Your task to perform on an android device: Go to calendar. Show me events next week Image 0: 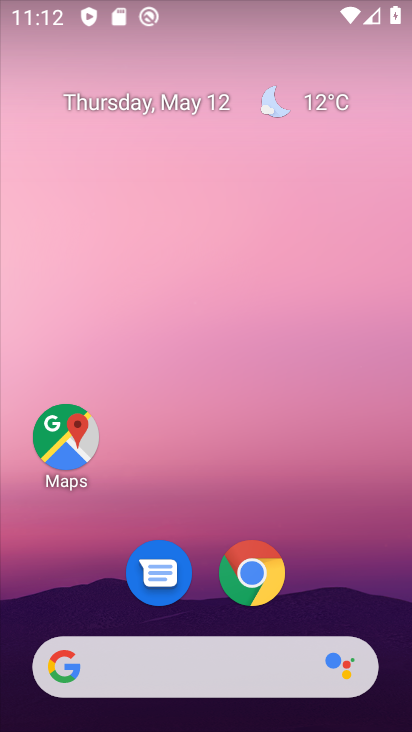
Step 0: press home button
Your task to perform on an android device: Go to calendar. Show me events next week Image 1: 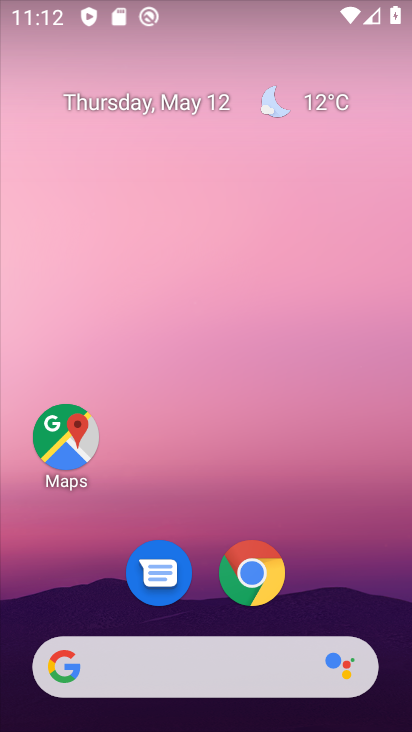
Step 1: drag from (340, 537) to (260, 103)
Your task to perform on an android device: Go to calendar. Show me events next week Image 2: 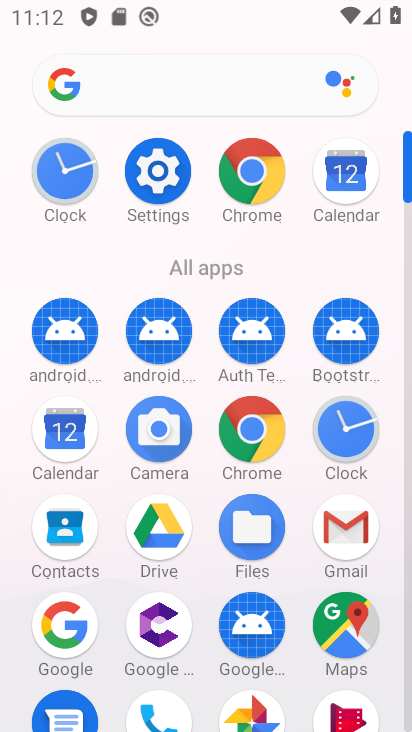
Step 2: click (63, 440)
Your task to perform on an android device: Go to calendar. Show me events next week Image 3: 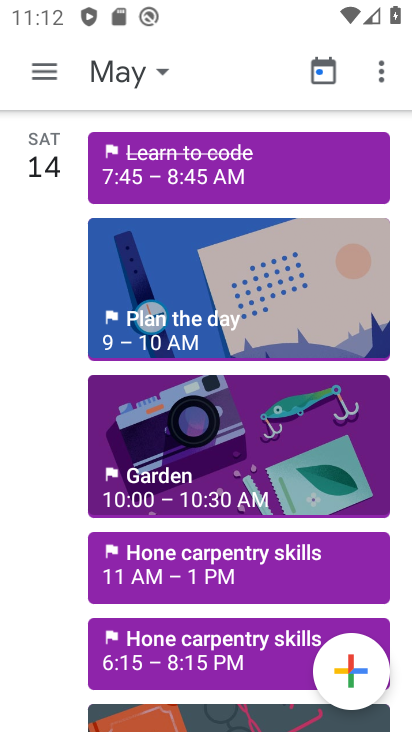
Step 3: click (171, 74)
Your task to perform on an android device: Go to calendar. Show me events next week Image 4: 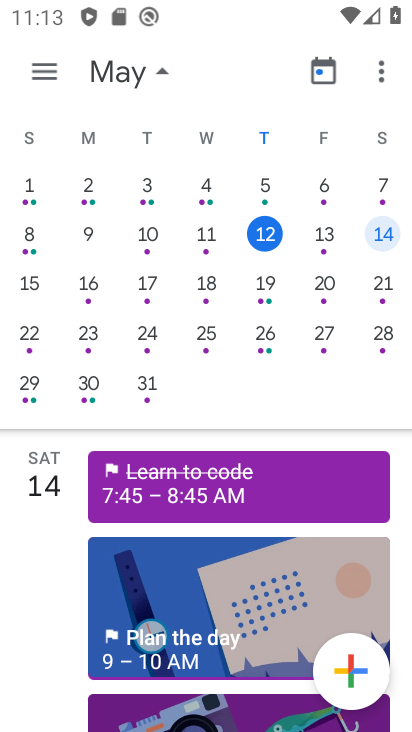
Step 4: click (145, 79)
Your task to perform on an android device: Go to calendar. Show me events next week Image 5: 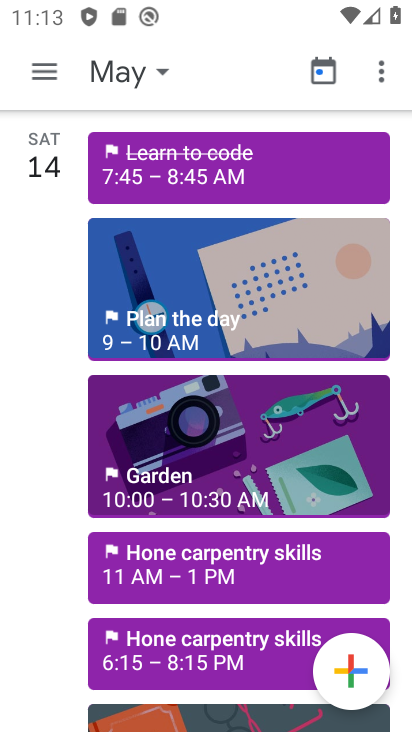
Step 5: task complete